Your task to perform on an android device: stop showing notifications on the lock screen Image 0: 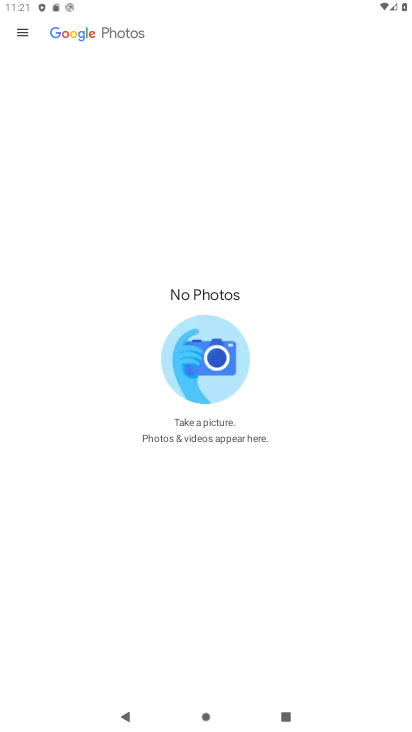
Step 0: press home button
Your task to perform on an android device: stop showing notifications on the lock screen Image 1: 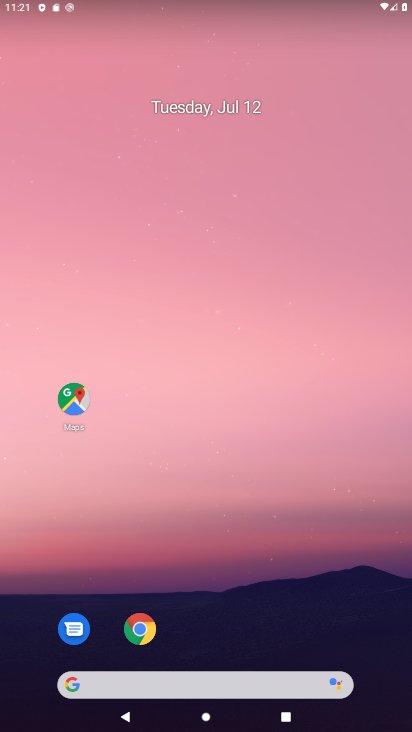
Step 1: drag from (234, 495) to (148, 0)
Your task to perform on an android device: stop showing notifications on the lock screen Image 2: 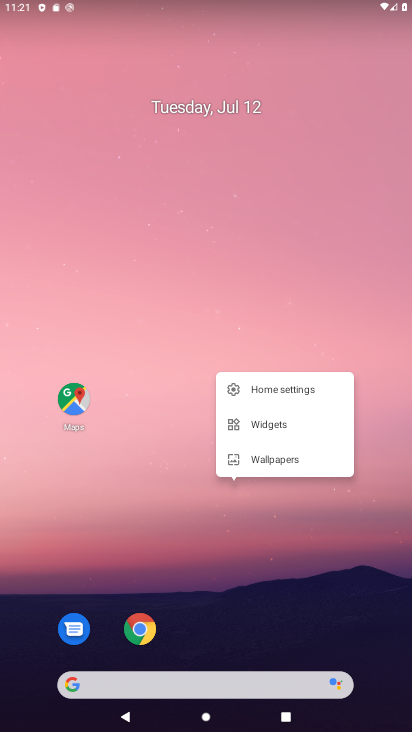
Step 2: click (146, 347)
Your task to perform on an android device: stop showing notifications on the lock screen Image 3: 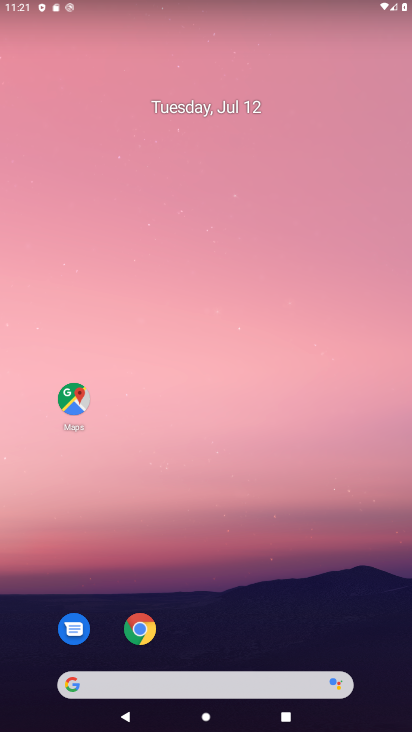
Step 3: drag from (227, 571) to (148, 171)
Your task to perform on an android device: stop showing notifications on the lock screen Image 4: 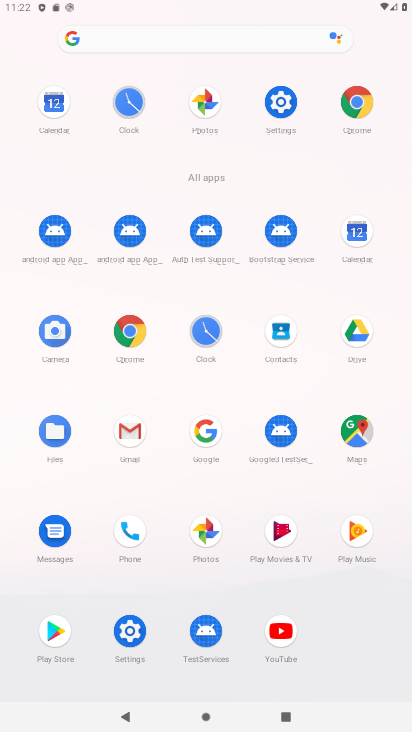
Step 4: click (286, 100)
Your task to perform on an android device: stop showing notifications on the lock screen Image 5: 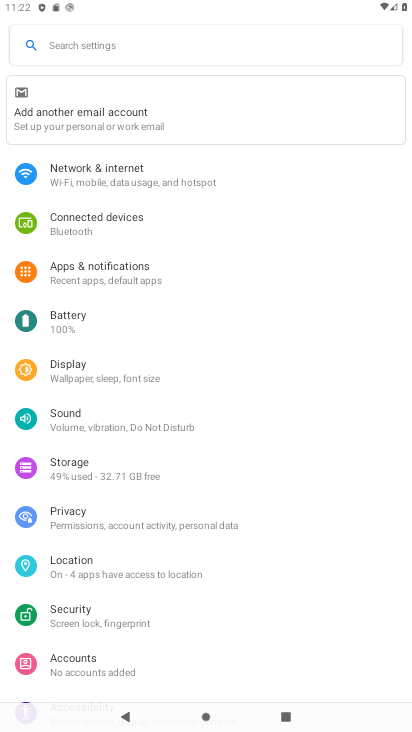
Step 5: click (80, 264)
Your task to perform on an android device: stop showing notifications on the lock screen Image 6: 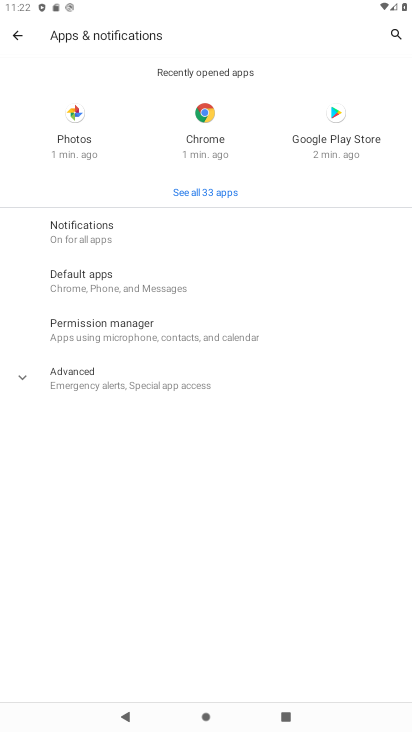
Step 6: click (83, 217)
Your task to perform on an android device: stop showing notifications on the lock screen Image 7: 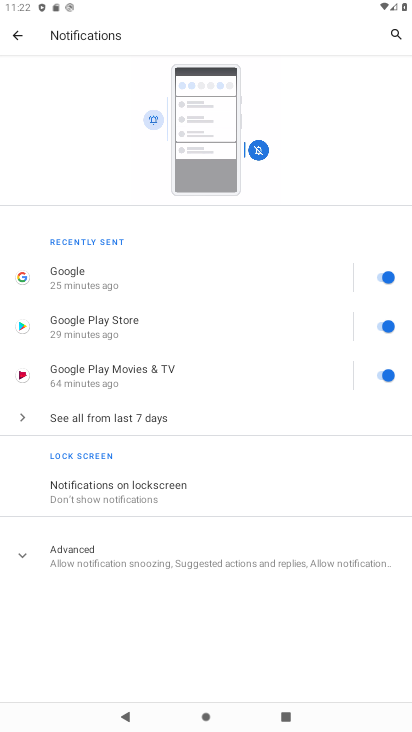
Step 7: click (120, 490)
Your task to perform on an android device: stop showing notifications on the lock screen Image 8: 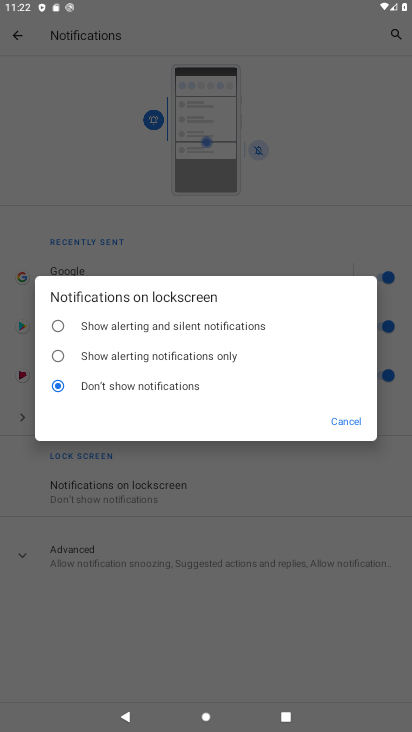
Step 8: task complete